Your task to perform on an android device: turn on notifications settings in the gmail app Image 0: 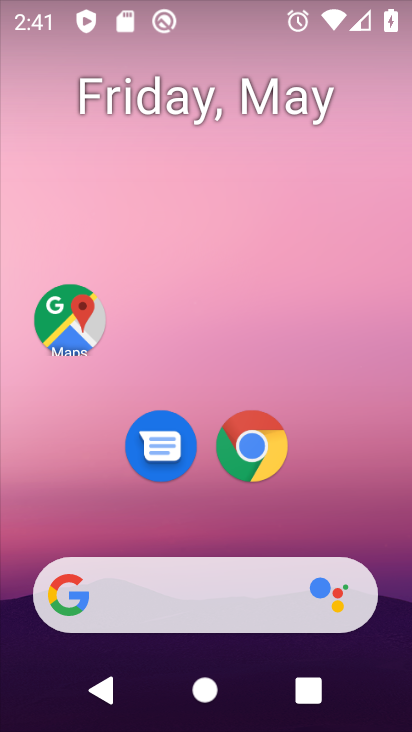
Step 0: drag from (372, 535) to (305, 155)
Your task to perform on an android device: turn on notifications settings in the gmail app Image 1: 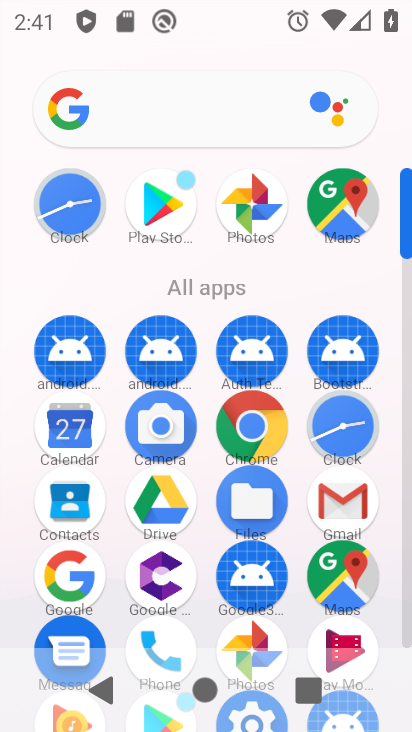
Step 1: click (357, 513)
Your task to perform on an android device: turn on notifications settings in the gmail app Image 2: 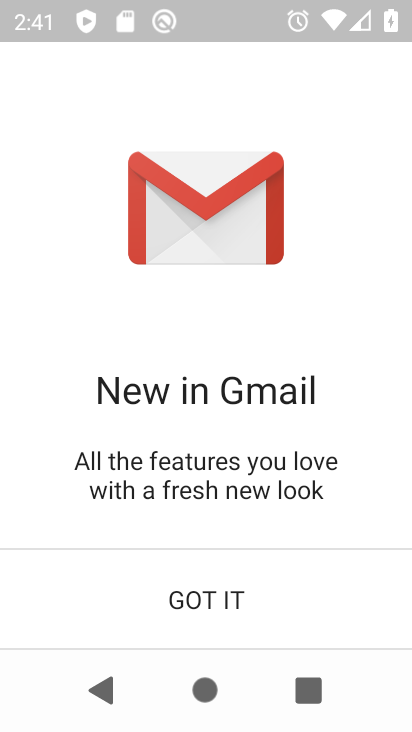
Step 2: click (196, 595)
Your task to perform on an android device: turn on notifications settings in the gmail app Image 3: 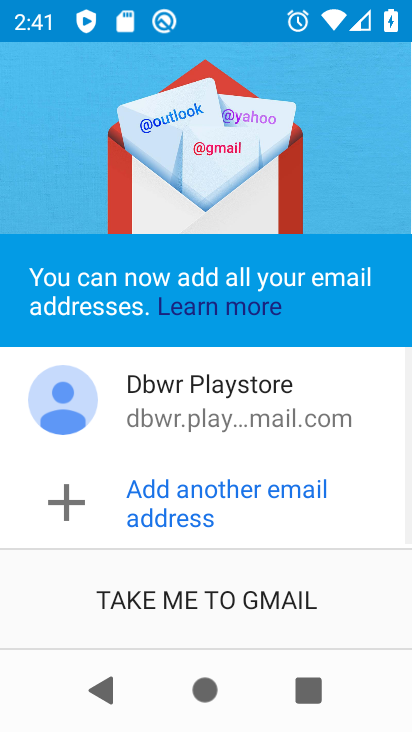
Step 3: click (196, 595)
Your task to perform on an android device: turn on notifications settings in the gmail app Image 4: 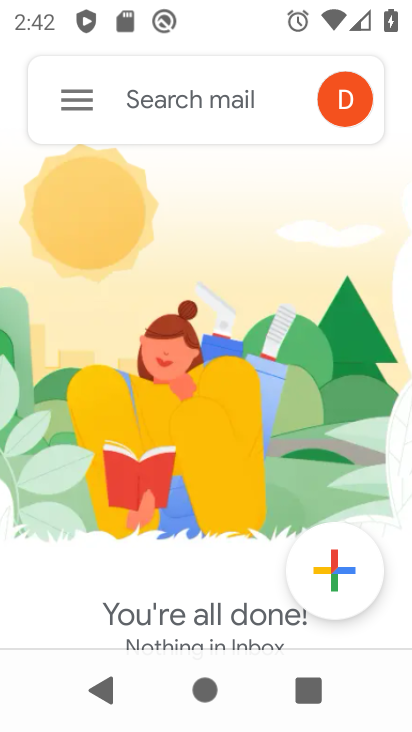
Step 4: click (79, 97)
Your task to perform on an android device: turn on notifications settings in the gmail app Image 5: 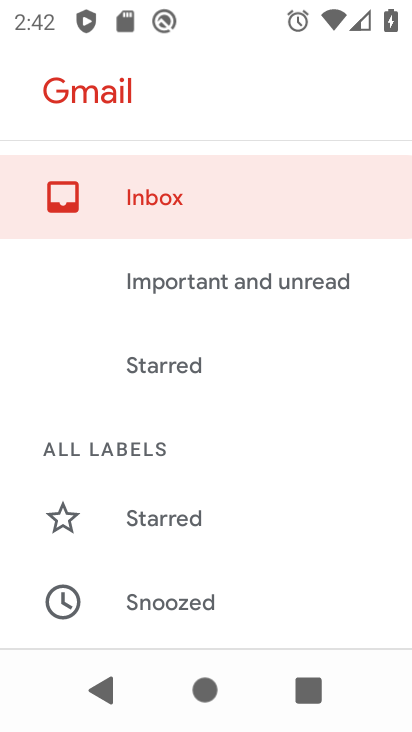
Step 5: drag from (225, 575) to (233, 234)
Your task to perform on an android device: turn on notifications settings in the gmail app Image 6: 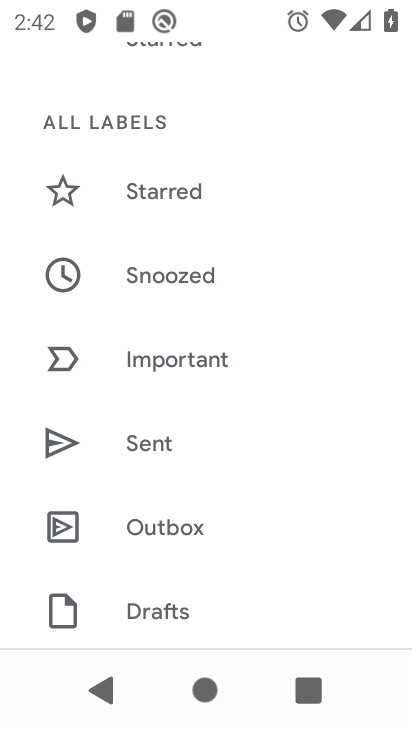
Step 6: drag from (226, 575) to (244, 199)
Your task to perform on an android device: turn on notifications settings in the gmail app Image 7: 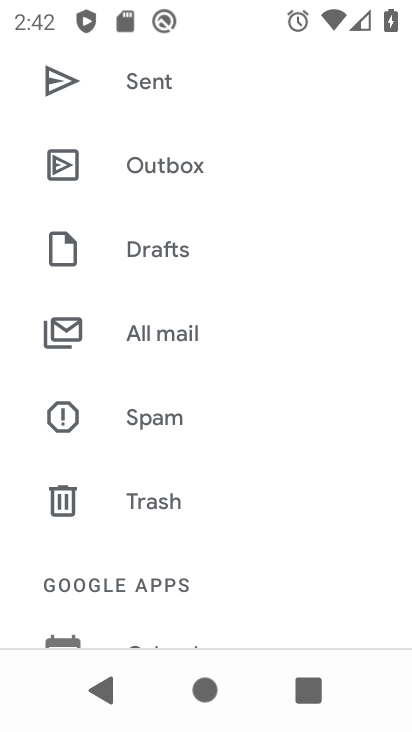
Step 7: drag from (223, 588) to (243, 185)
Your task to perform on an android device: turn on notifications settings in the gmail app Image 8: 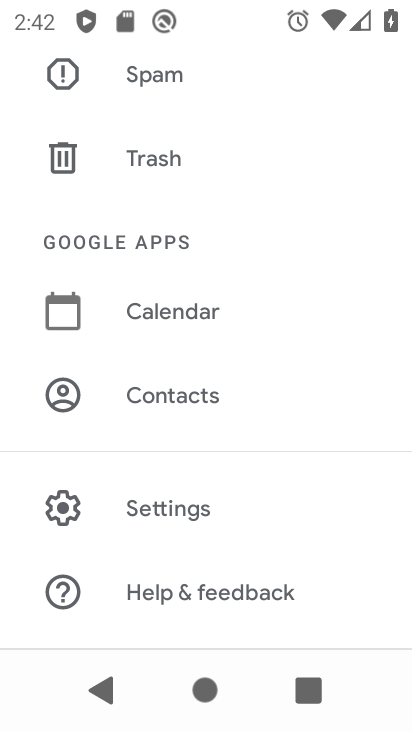
Step 8: click (216, 538)
Your task to perform on an android device: turn on notifications settings in the gmail app Image 9: 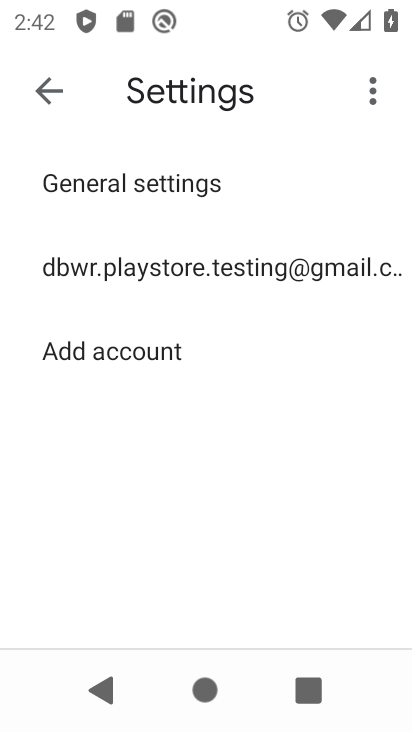
Step 9: click (220, 271)
Your task to perform on an android device: turn on notifications settings in the gmail app Image 10: 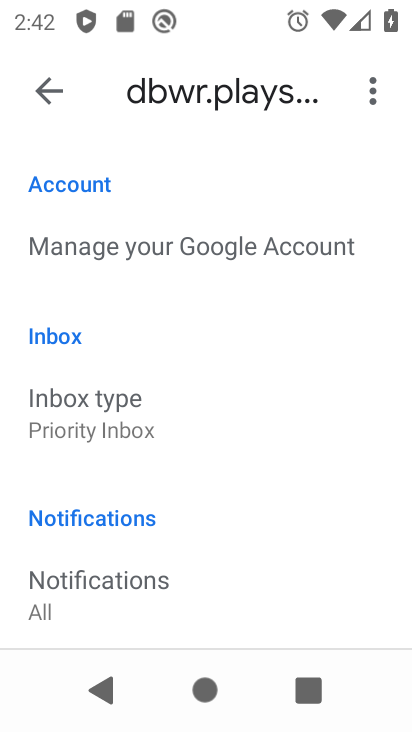
Step 10: drag from (180, 559) to (175, 286)
Your task to perform on an android device: turn on notifications settings in the gmail app Image 11: 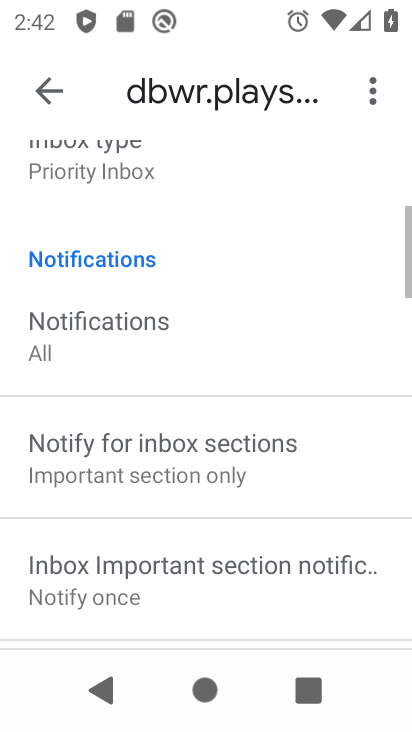
Step 11: drag from (197, 582) to (202, 259)
Your task to perform on an android device: turn on notifications settings in the gmail app Image 12: 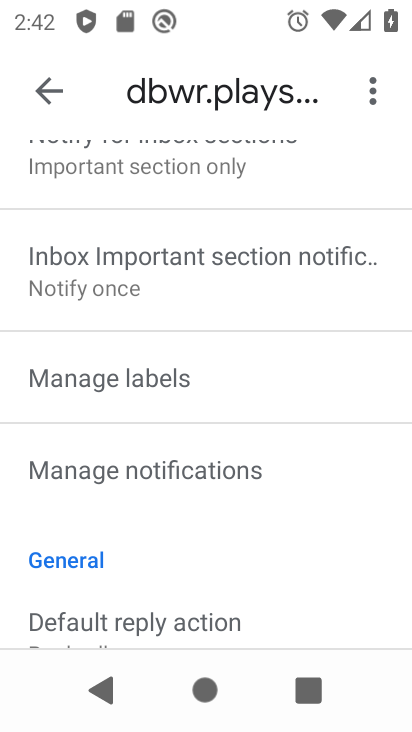
Step 12: click (209, 466)
Your task to perform on an android device: turn on notifications settings in the gmail app Image 13: 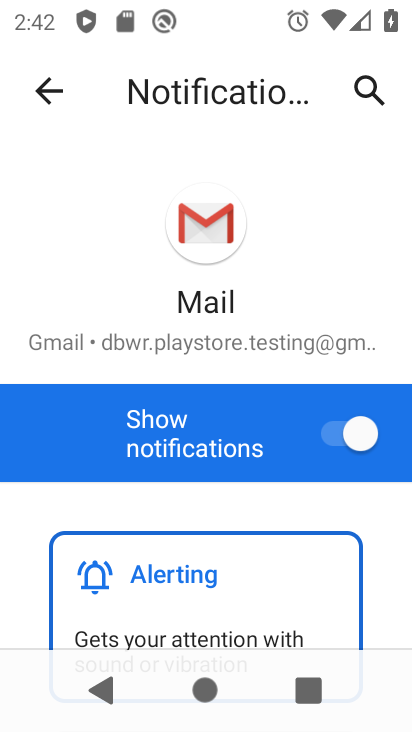
Step 13: drag from (385, 634) to (303, 227)
Your task to perform on an android device: turn on notifications settings in the gmail app Image 14: 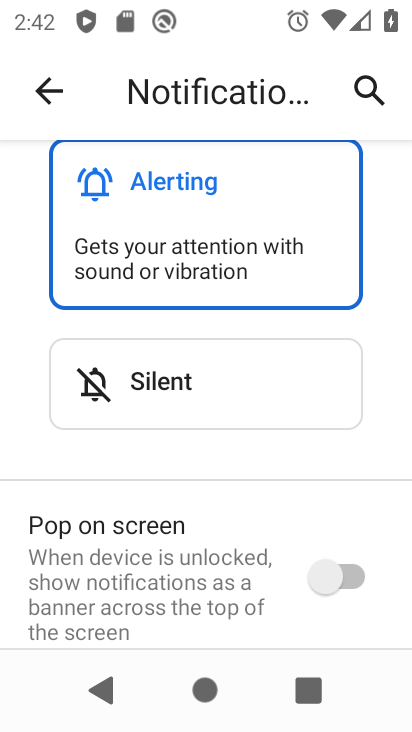
Step 14: click (339, 554)
Your task to perform on an android device: turn on notifications settings in the gmail app Image 15: 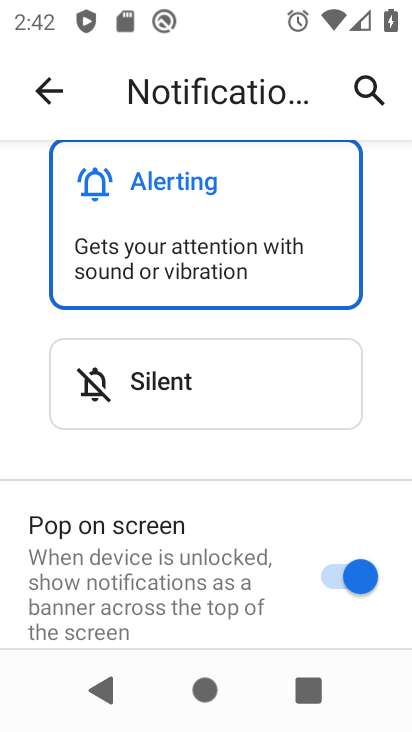
Step 15: task complete